Your task to perform on an android device: delete a single message in the gmail app Image 0: 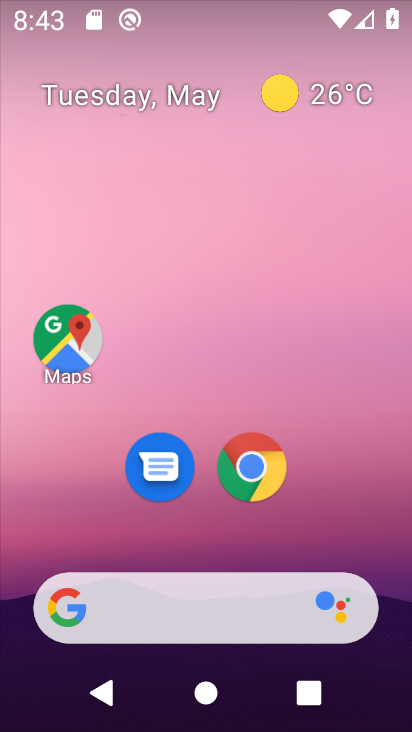
Step 0: drag from (397, 716) to (302, 258)
Your task to perform on an android device: delete a single message in the gmail app Image 1: 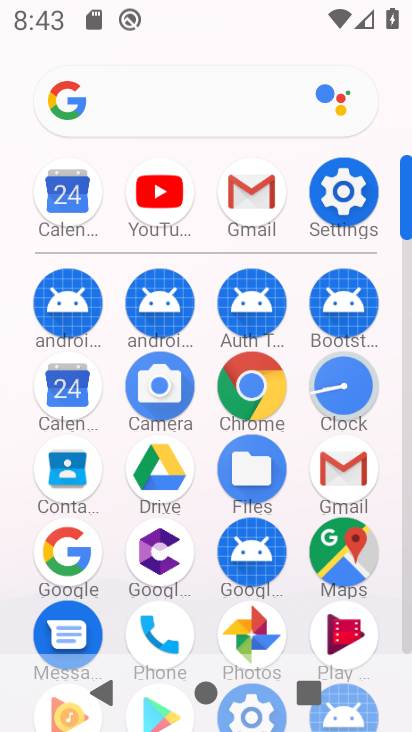
Step 1: click (338, 474)
Your task to perform on an android device: delete a single message in the gmail app Image 2: 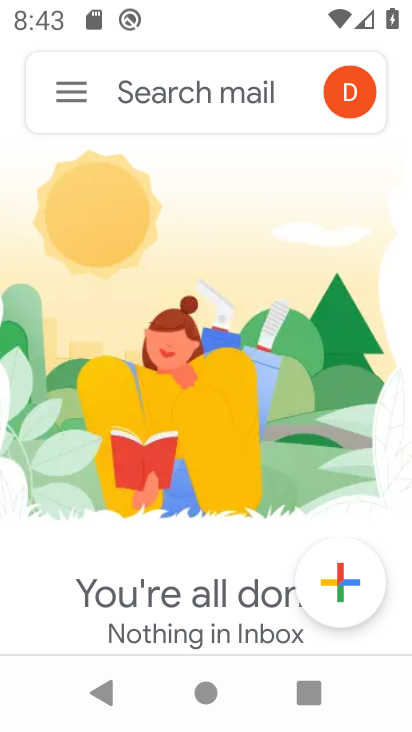
Step 2: click (52, 90)
Your task to perform on an android device: delete a single message in the gmail app Image 3: 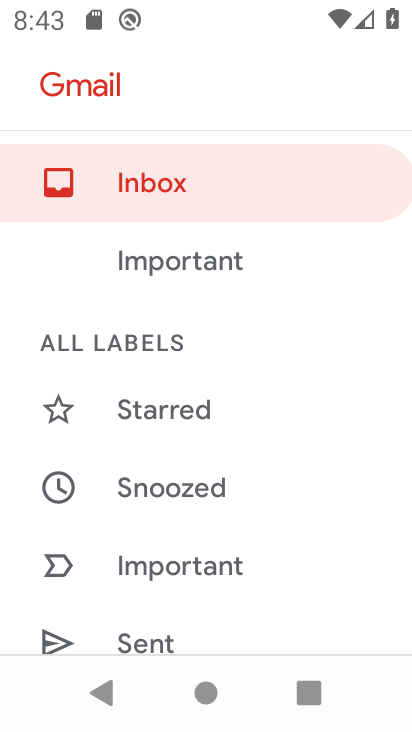
Step 3: click (146, 194)
Your task to perform on an android device: delete a single message in the gmail app Image 4: 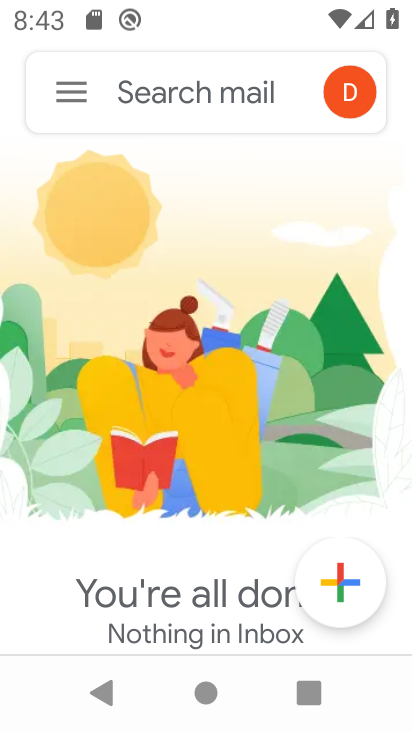
Step 4: task complete